Your task to perform on an android device: Open display settings Image 0: 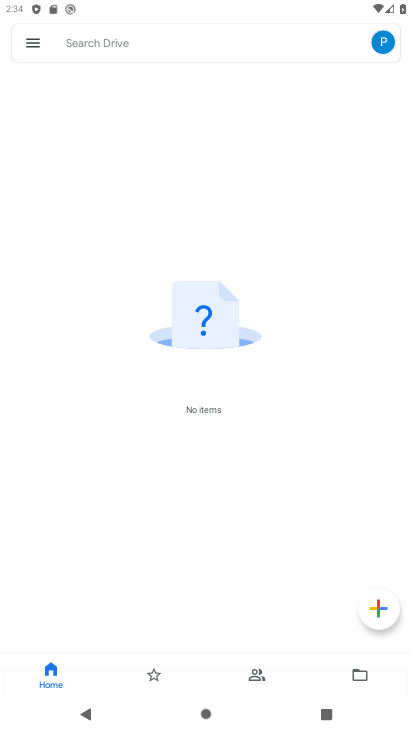
Step 0: press home button
Your task to perform on an android device: Open display settings Image 1: 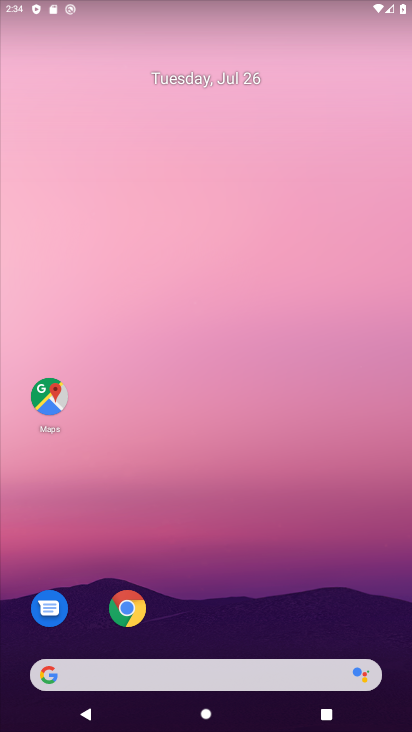
Step 1: drag from (206, 638) to (386, 115)
Your task to perform on an android device: Open display settings Image 2: 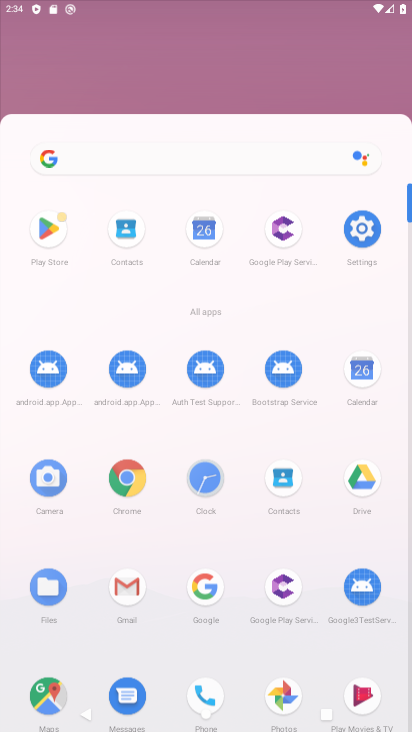
Step 2: click (376, 122)
Your task to perform on an android device: Open display settings Image 3: 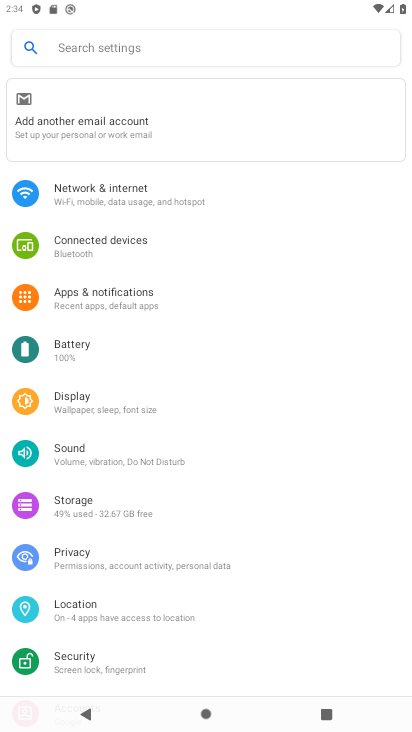
Step 3: click (104, 407)
Your task to perform on an android device: Open display settings Image 4: 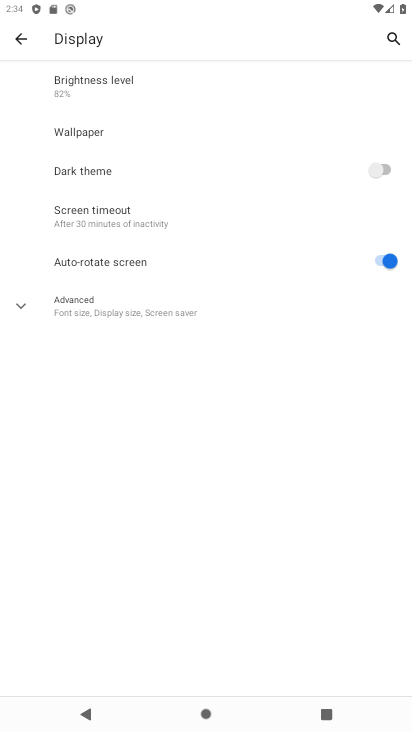
Step 4: task complete